Your task to perform on an android device: open a bookmark in the chrome app Image 0: 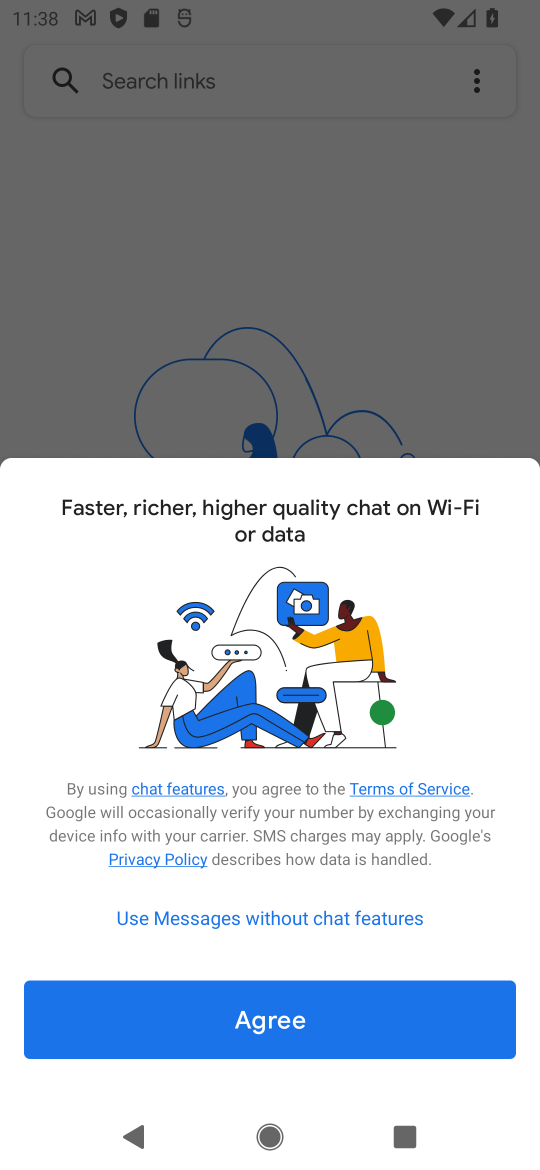
Step 0: press back button
Your task to perform on an android device: open a bookmark in the chrome app Image 1: 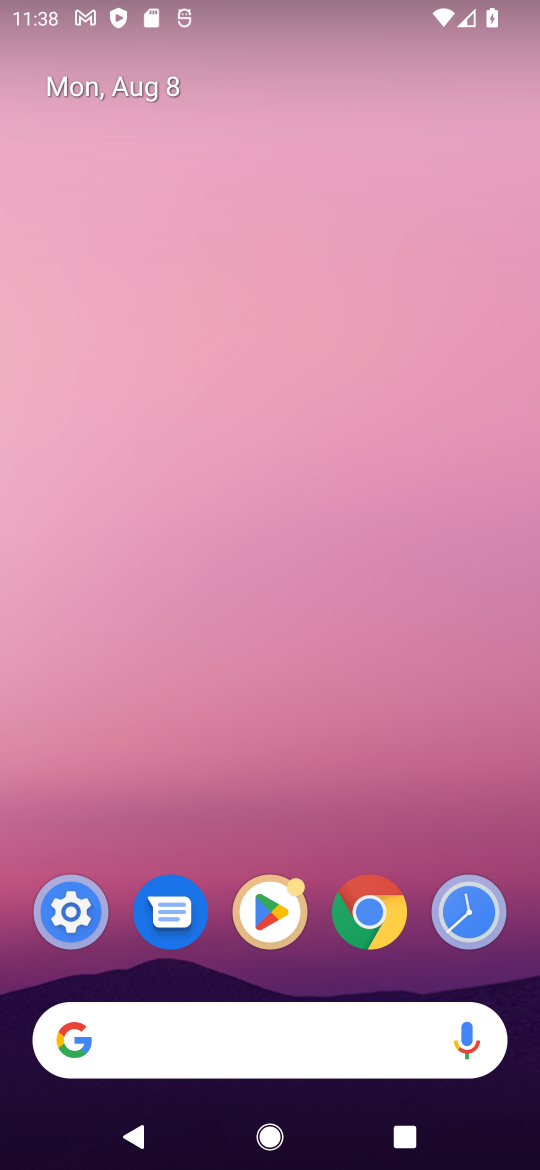
Step 1: click (348, 916)
Your task to perform on an android device: open a bookmark in the chrome app Image 2: 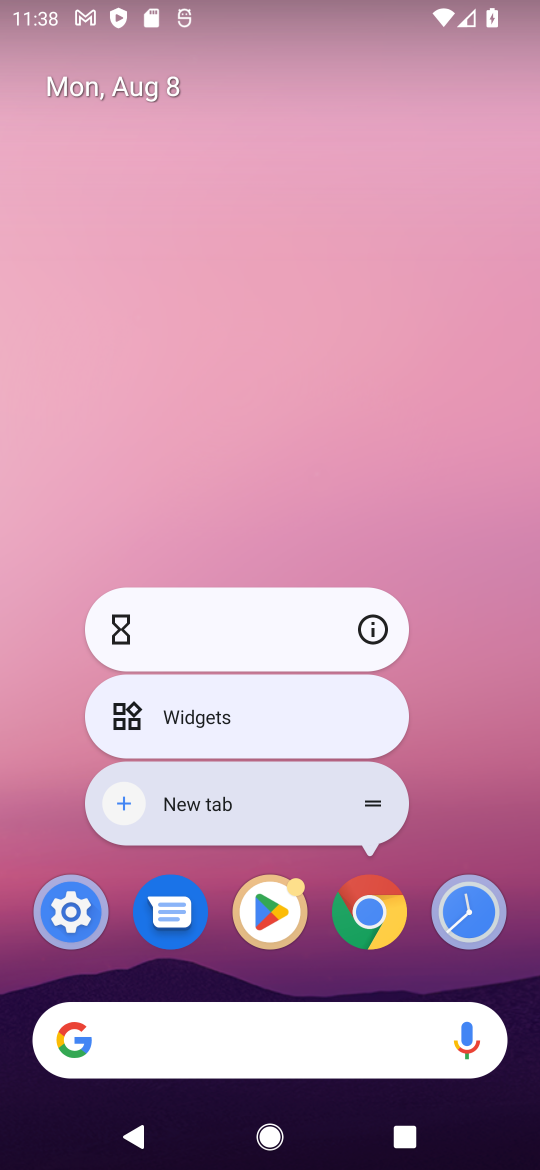
Step 2: click (401, 901)
Your task to perform on an android device: open a bookmark in the chrome app Image 3: 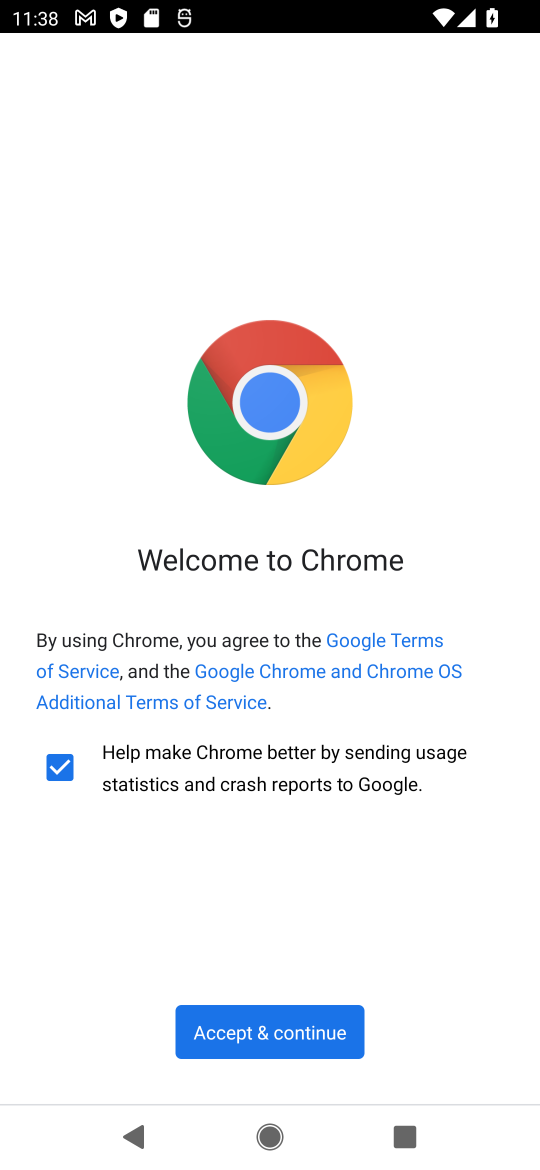
Step 3: click (253, 1033)
Your task to perform on an android device: open a bookmark in the chrome app Image 4: 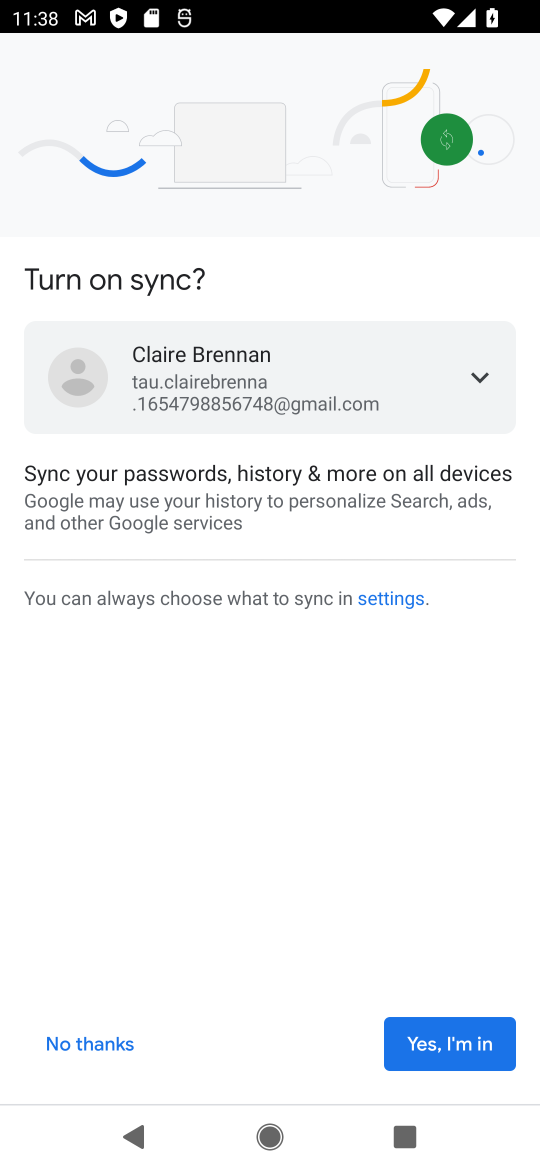
Step 4: click (472, 1052)
Your task to perform on an android device: open a bookmark in the chrome app Image 5: 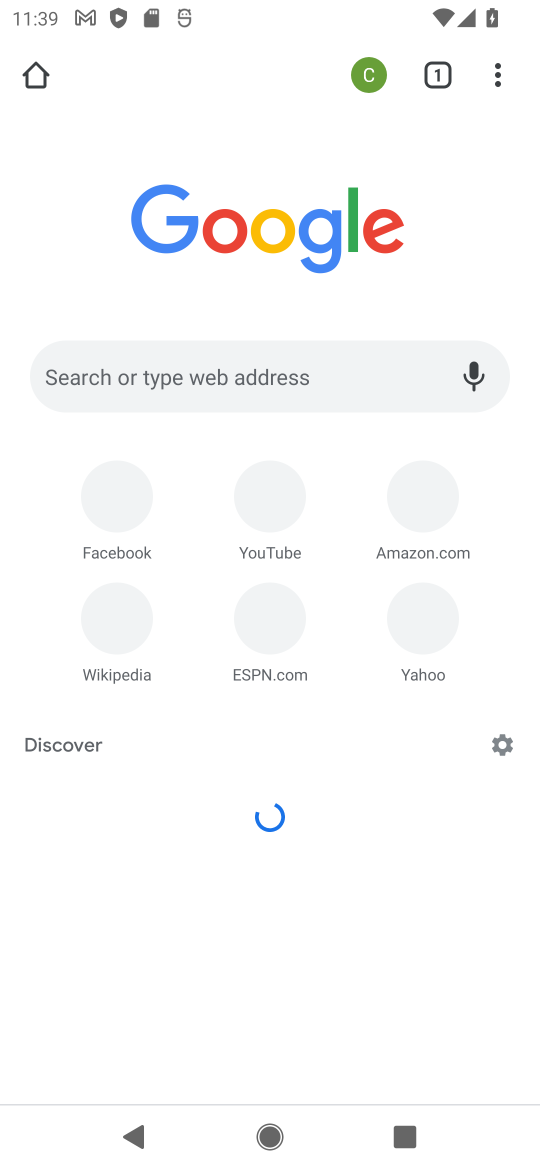
Step 5: drag from (497, 74) to (287, 442)
Your task to perform on an android device: open a bookmark in the chrome app Image 6: 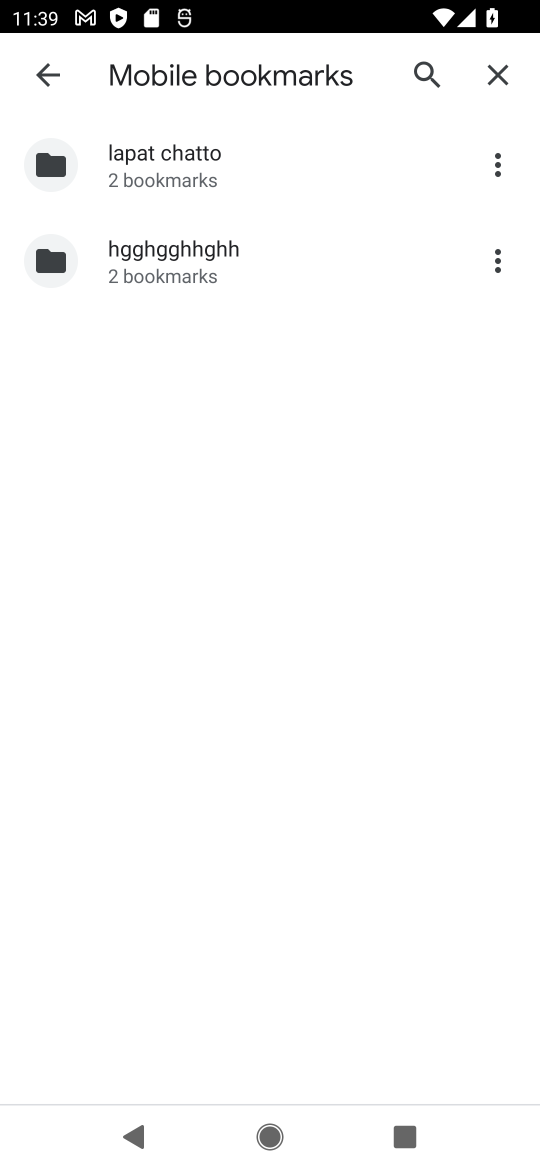
Step 6: click (200, 244)
Your task to perform on an android device: open a bookmark in the chrome app Image 7: 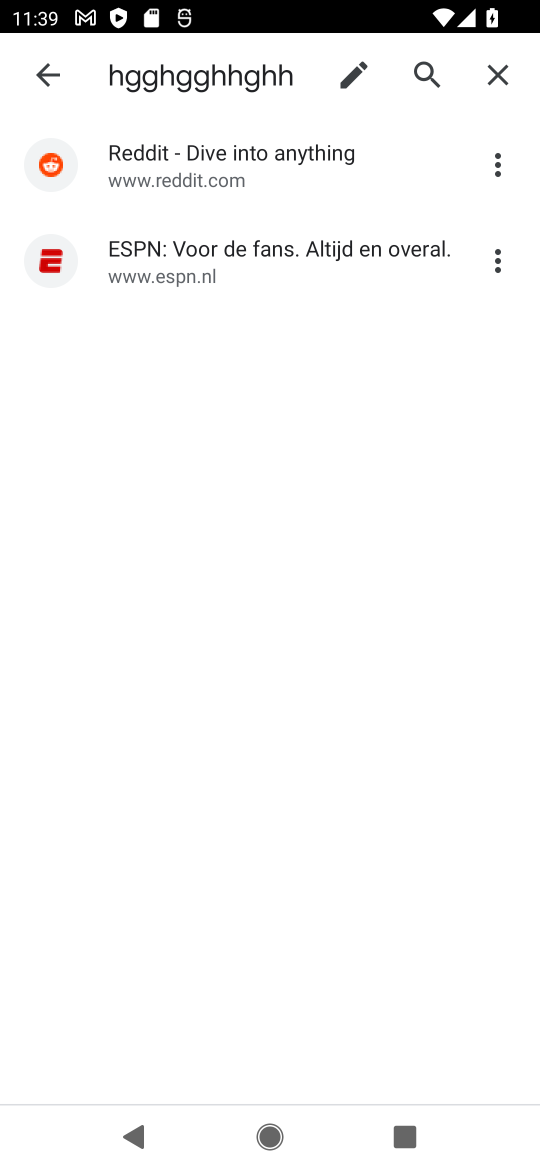
Step 7: click (200, 244)
Your task to perform on an android device: open a bookmark in the chrome app Image 8: 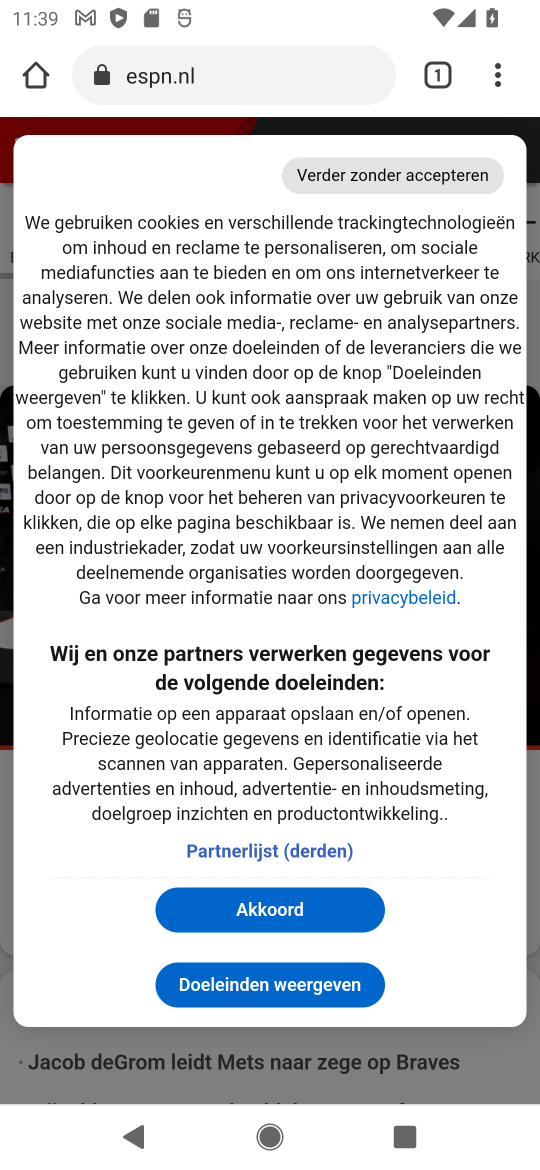
Step 8: task complete